Your task to perform on an android device: Set the phone to "Do not disturb". Image 0: 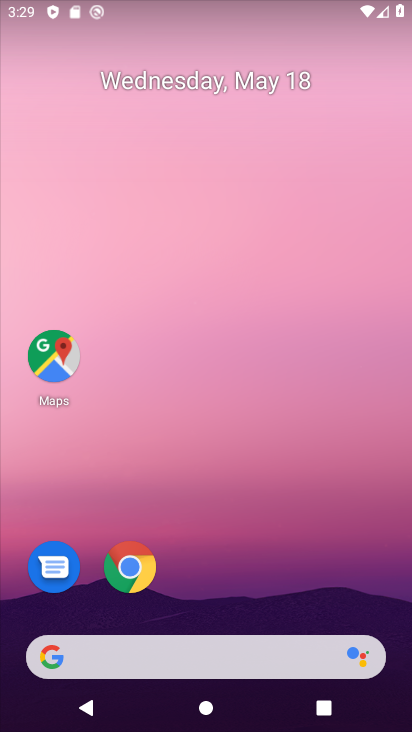
Step 0: drag from (234, 117) to (206, 525)
Your task to perform on an android device: Set the phone to "Do not disturb". Image 1: 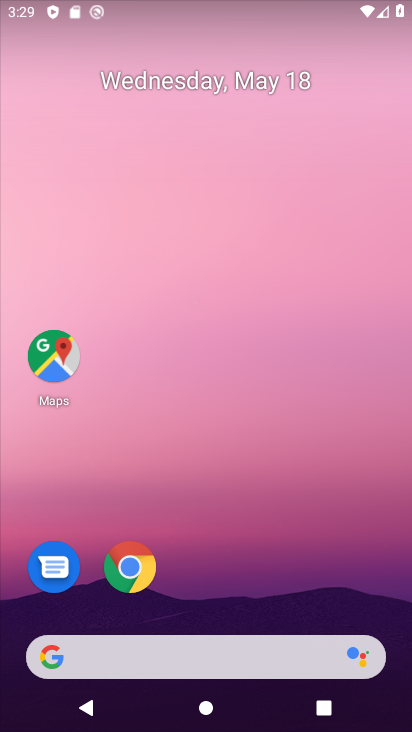
Step 1: drag from (160, 21) to (209, 524)
Your task to perform on an android device: Set the phone to "Do not disturb". Image 2: 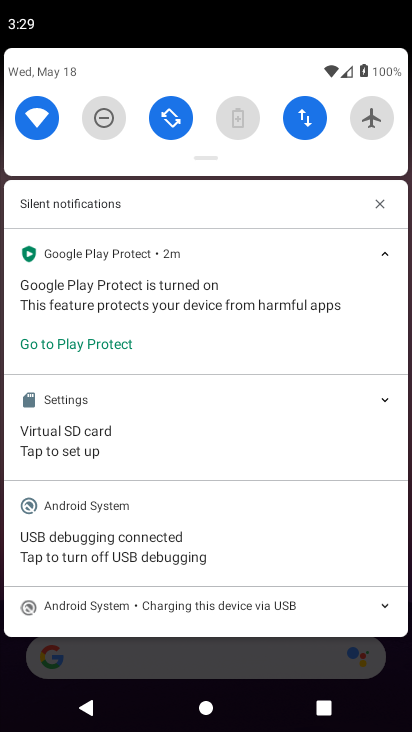
Step 2: drag from (208, 139) to (208, 646)
Your task to perform on an android device: Set the phone to "Do not disturb". Image 3: 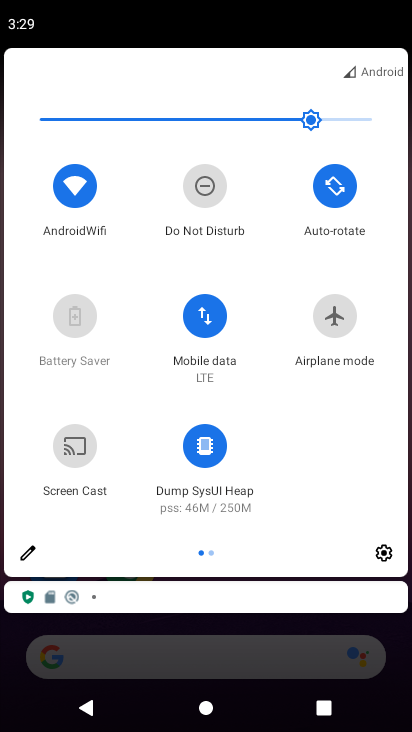
Step 3: click (202, 179)
Your task to perform on an android device: Set the phone to "Do not disturb". Image 4: 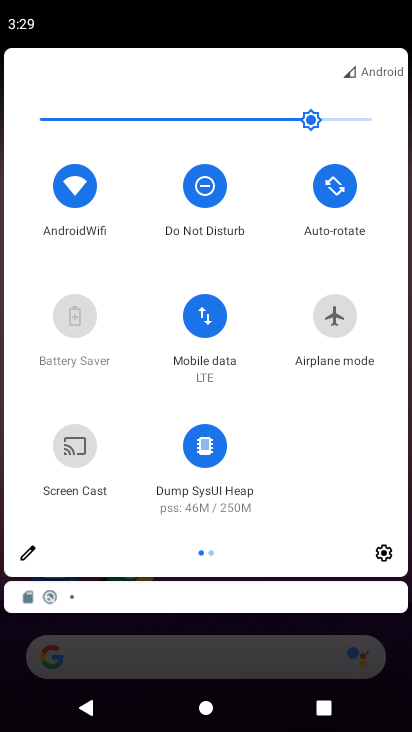
Step 4: task complete